Your task to perform on an android device: manage bookmarks in the chrome app Image 0: 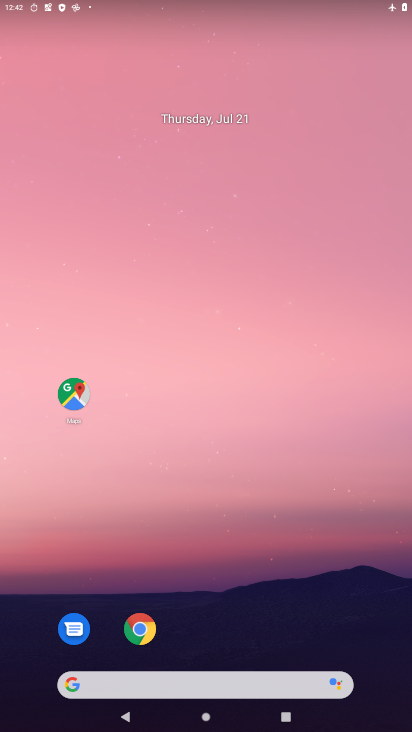
Step 0: drag from (271, 666) to (277, 107)
Your task to perform on an android device: manage bookmarks in the chrome app Image 1: 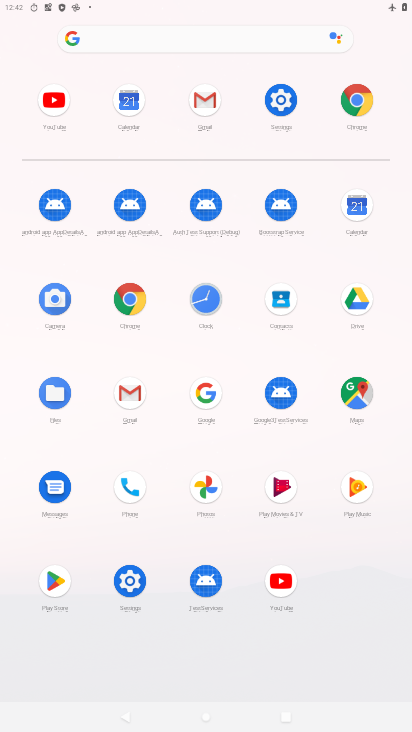
Step 1: click (128, 307)
Your task to perform on an android device: manage bookmarks in the chrome app Image 2: 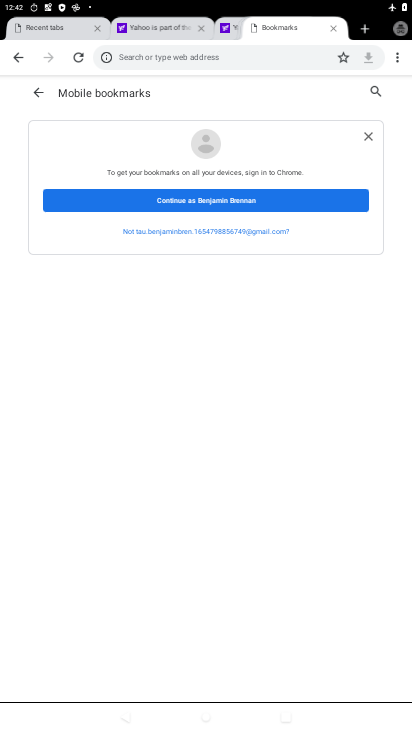
Step 2: task complete